Your task to perform on an android device: toggle data saver in the chrome app Image 0: 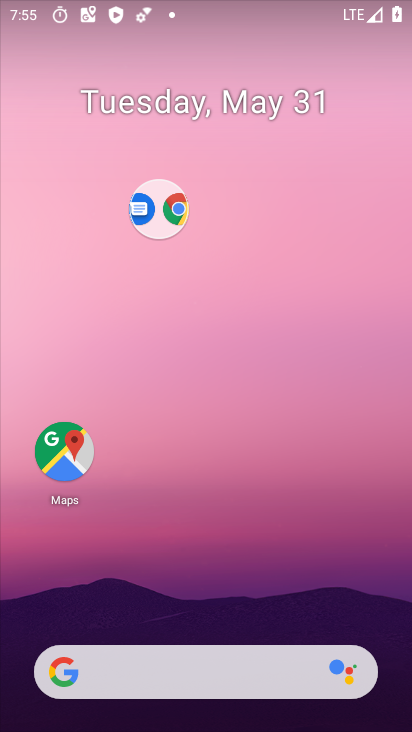
Step 0: drag from (201, 590) to (238, 6)
Your task to perform on an android device: toggle data saver in the chrome app Image 1: 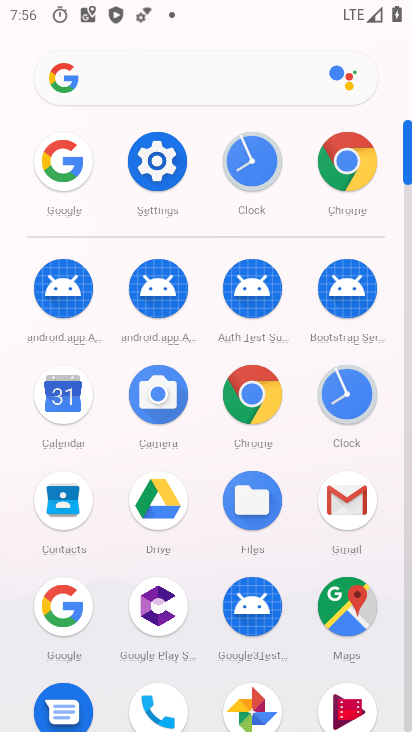
Step 1: click (360, 198)
Your task to perform on an android device: toggle data saver in the chrome app Image 2: 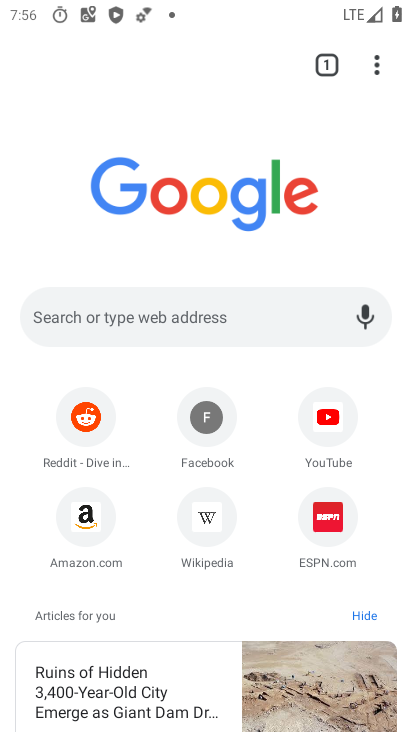
Step 2: click (372, 57)
Your task to perform on an android device: toggle data saver in the chrome app Image 3: 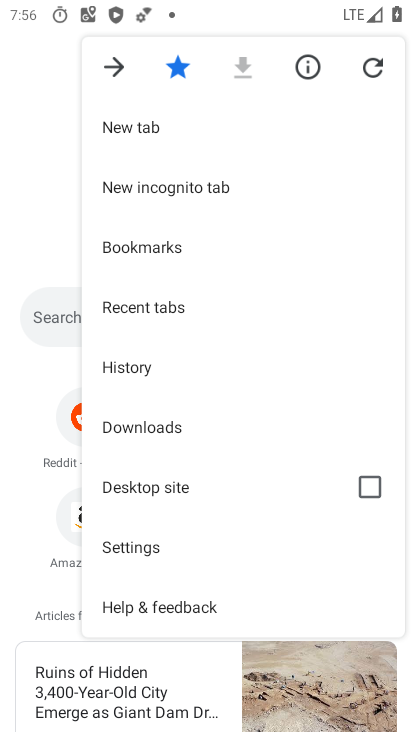
Step 3: click (145, 537)
Your task to perform on an android device: toggle data saver in the chrome app Image 4: 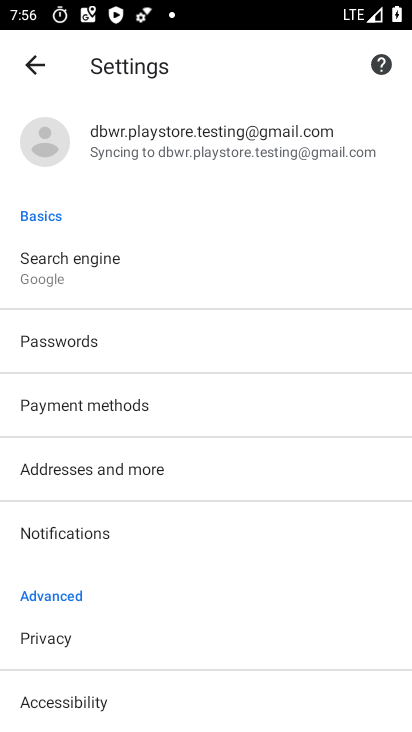
Step 4: drag from (98, 638) to (176, 343)
Your task to perform on an android device: toggle data saver in the chrome app Image 5: 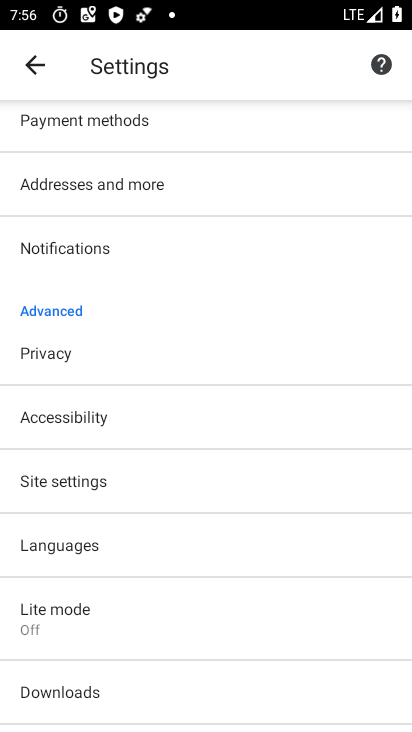
Step 5: click (79, 612)
Your task to perform on an android device: toggle data saver in the chrome app Image 6: 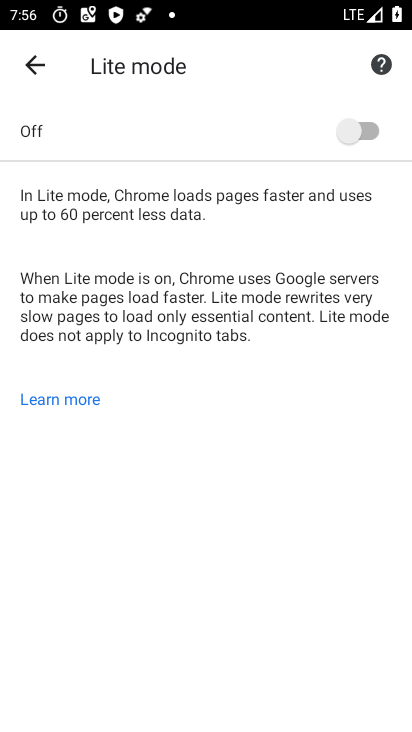
Step 6: click (356, 139)
Your task to perform on an android device: toggle data saver in the chrome app Image 7: 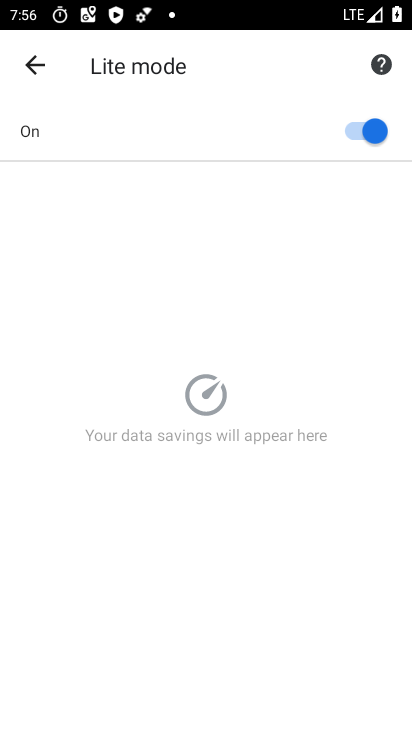
Step 7: task complete